Your task to perform on an android device: Open settings on Google Maps Image 0: 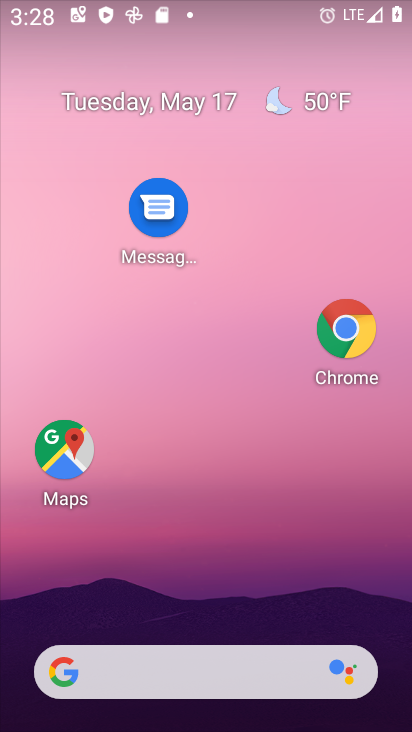
Step 0: click (93, 472)
Your task to perform on an android device: Open settings on Google Maps Image 1: 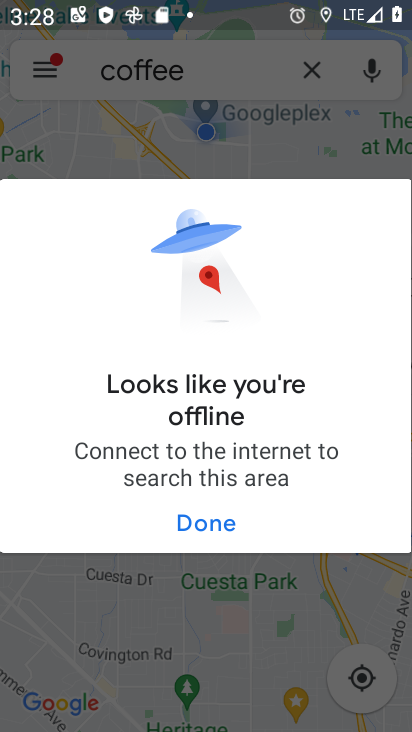
Step 1: task complete